Your task to perform on an android device: Play the last video I watched on Youtube Image 0: 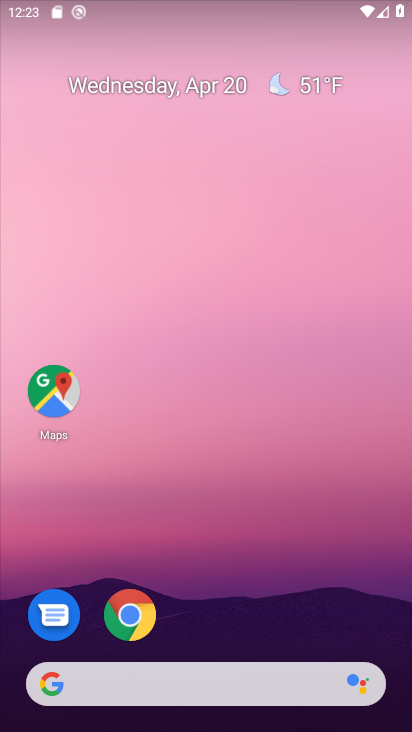
Step 0: drag from (183, 671) to (202, 119)
Your task to perform on an android device: Play the last video I watched on Youtube Image 1: 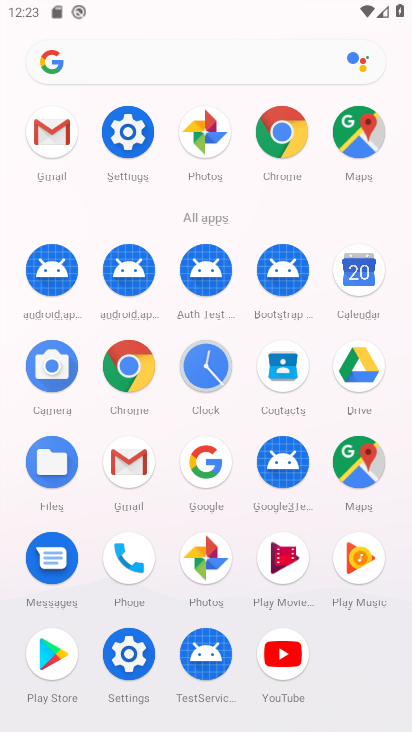
Step 1: click (290, 678)
Your task to perform on an android device: Play the last video I watched on Youtube Image 2: 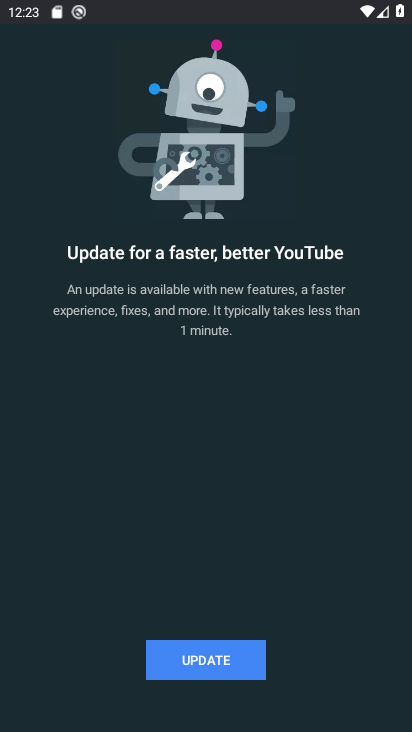
Step 2: click (226, 669)
Your task to perform on an android device: Play the last video I watched on Youtube Image 3: 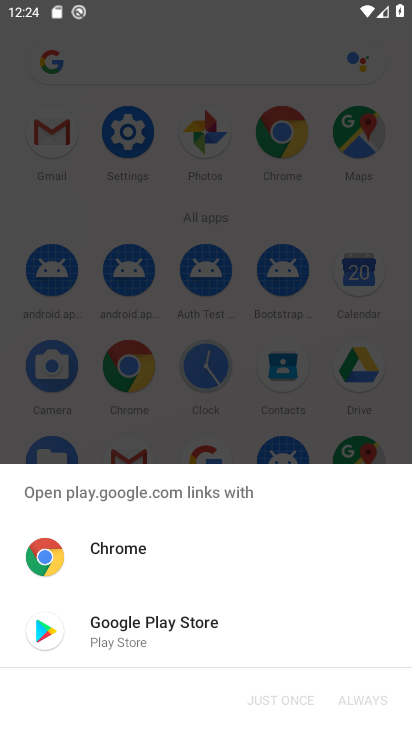
Step 3: click (175, 631)
Your task to perform on an android device: Play the last video I watched on Youtube Image 4: 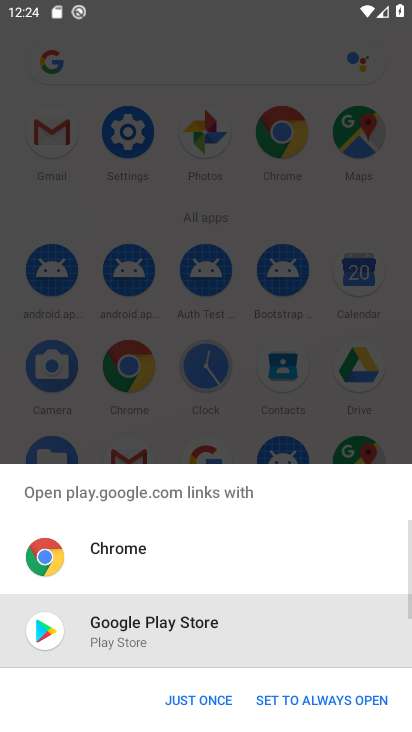
Step 4: click (219, 701)
Your task to perform on an android device: Play the last video I watched on Youtube Image 5: 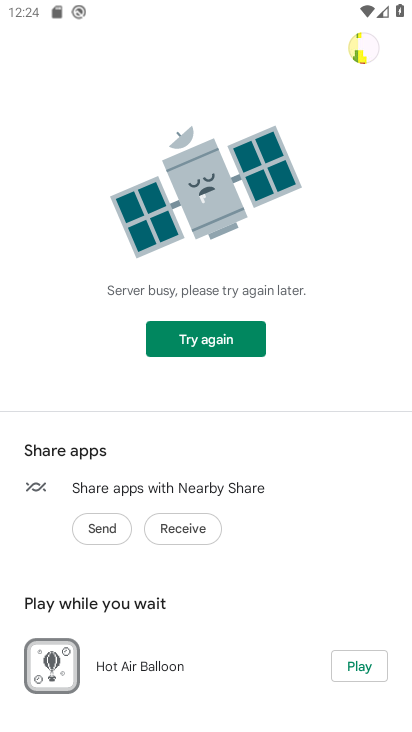
Step 5: click (208, 343)
Your task to perform on an android device: Play the last video I watched on Youtube Image 6: 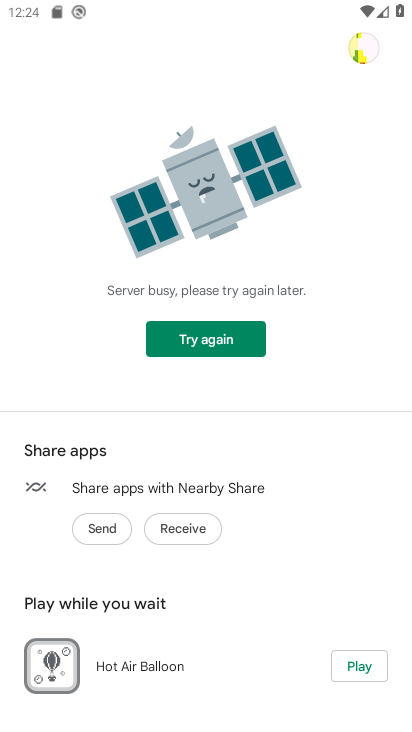
Step 6: task complete